Your task to perform on an android device: turn on bluetooth scan Image 0: 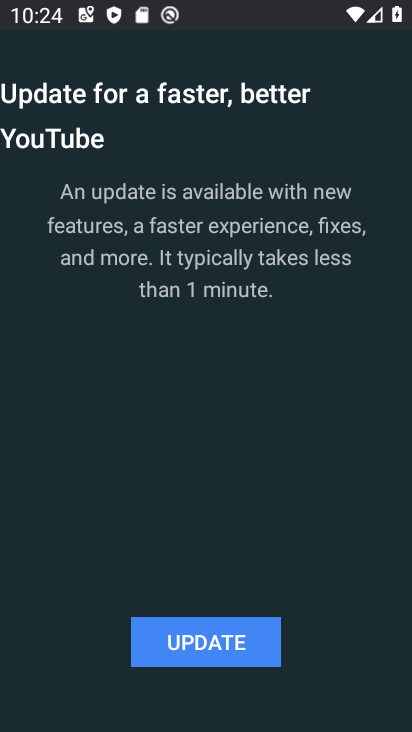
Step 0: press home button
Your task to perform on an android device: turn on bluetooth scan Image 1: 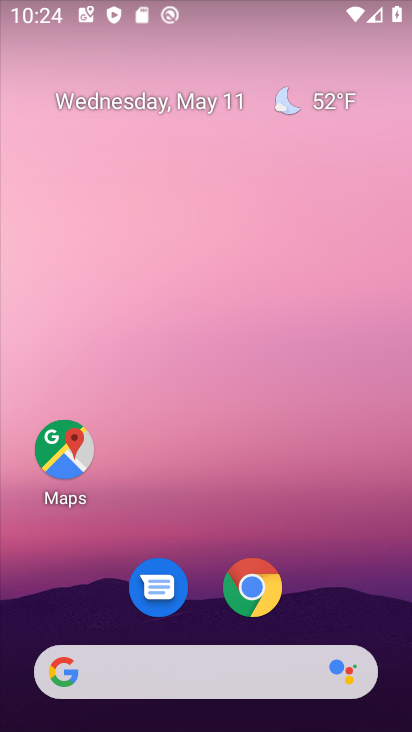
Step 1: drag from (214, 707) to (162, 224)
Your task to perform on an android device: turn on bluetooth scan Image 2: 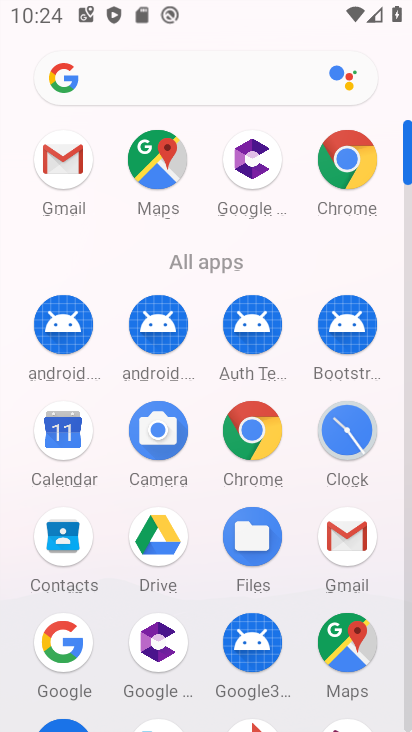
Step 2: drag from (108, 401) to (91, 250)
Your task to perform on an android device: turn on bluetooth scan Image 3: 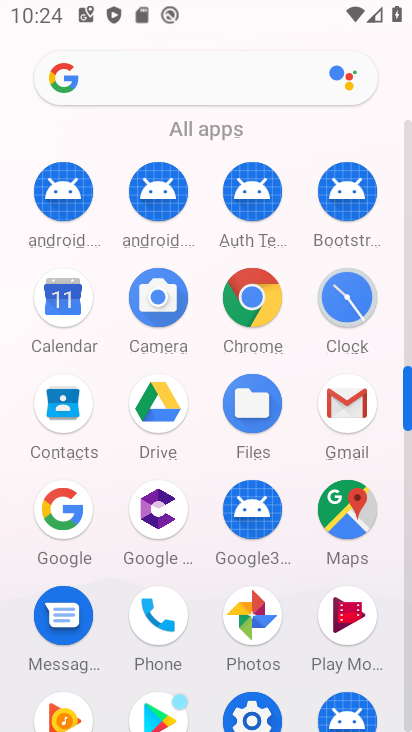
Step 3: click (262, 704)
Your task to perform on an android device: turn on bluetooth scan Image 4: 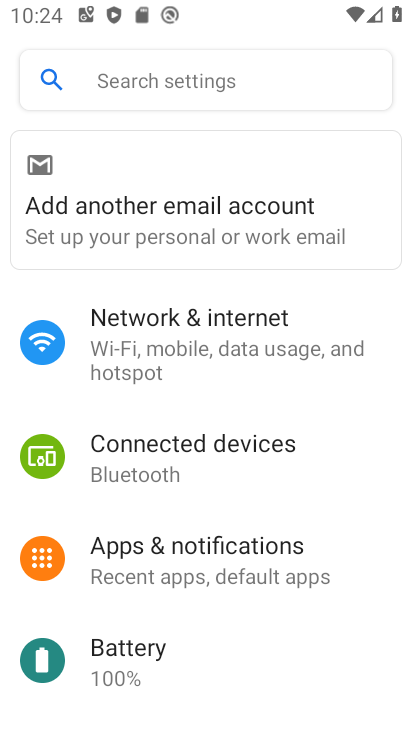
Step 4: click (148, 93)
Your task to perform on an android device: turn on bluetooth scan Image 5: 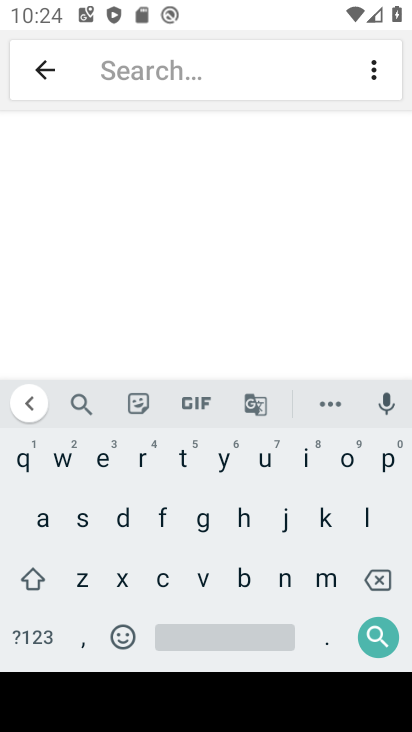
Step 5: click (367, 518)
Your task to perform on an android device: turn on bluetooth scan Image 6: 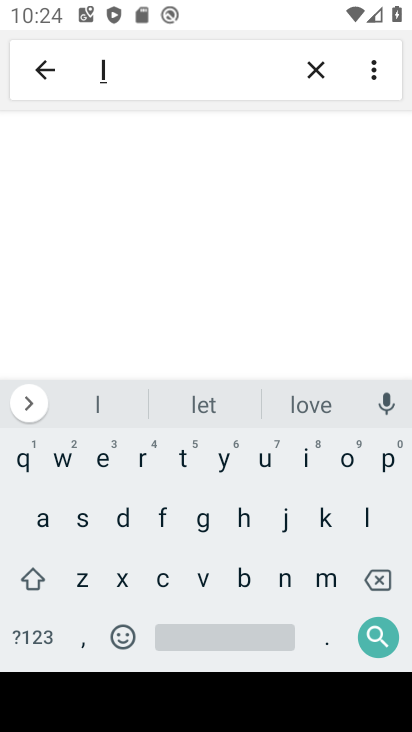
Step 6: click (336, 456)
Your task to perform on an android device: turn on bluetooth scan Image 7: 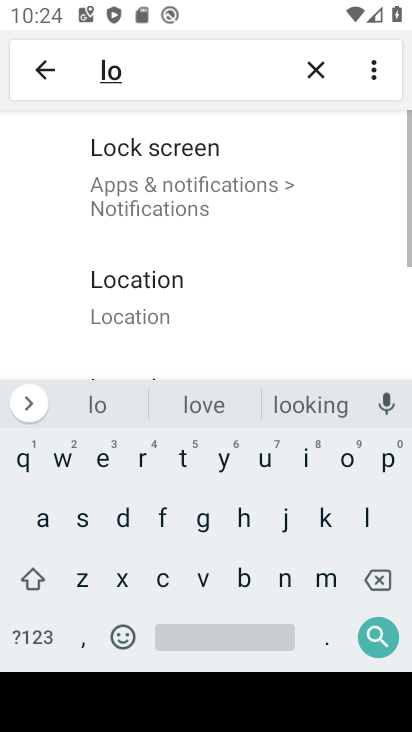
Step 7: click (153, 578)
Your task to perform on an android device: turn on bluetooth scan Image 8: 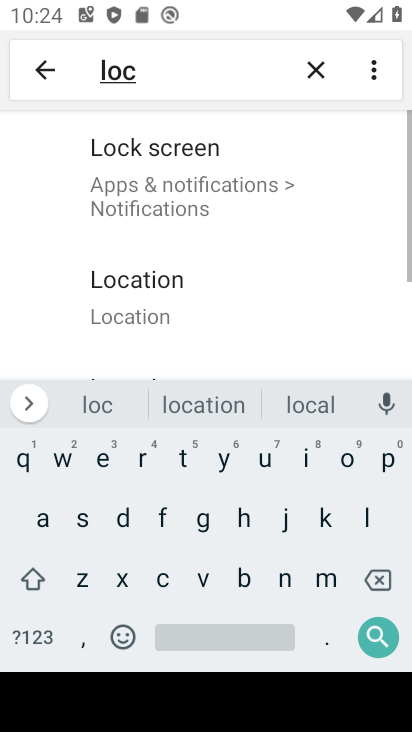
Step 8: click (158, 294)
Your task to perform on an android device: turn on bluetooth scan Image 9: 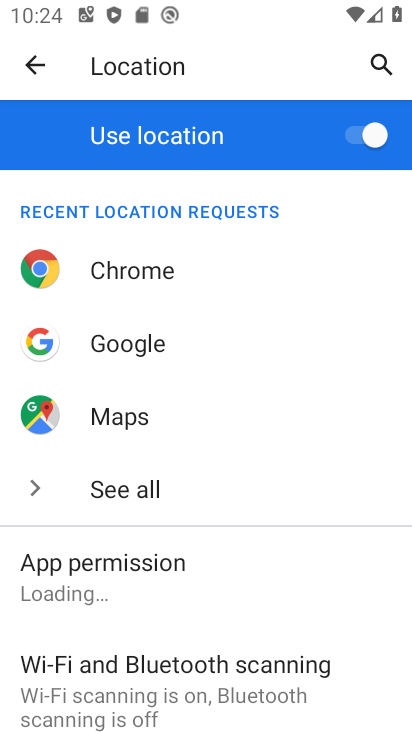
Step 9: click (245, 675)
Your task to perform on an android device: turn on bluetooth scan Image 10: 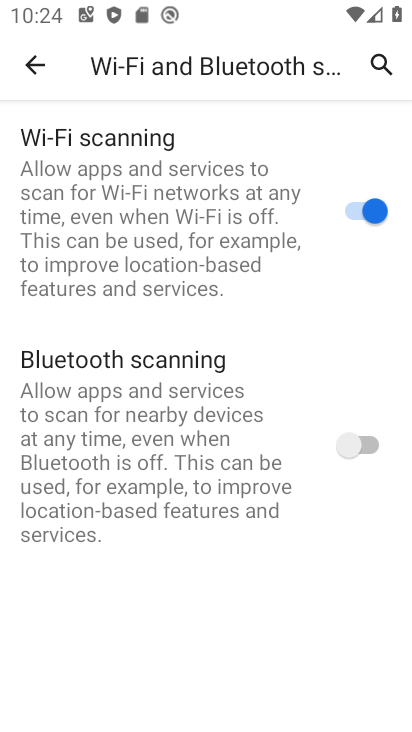
Step 10: click (326, 449)
Your task to perform on an android device: turn on bluetooth scan Image 11: 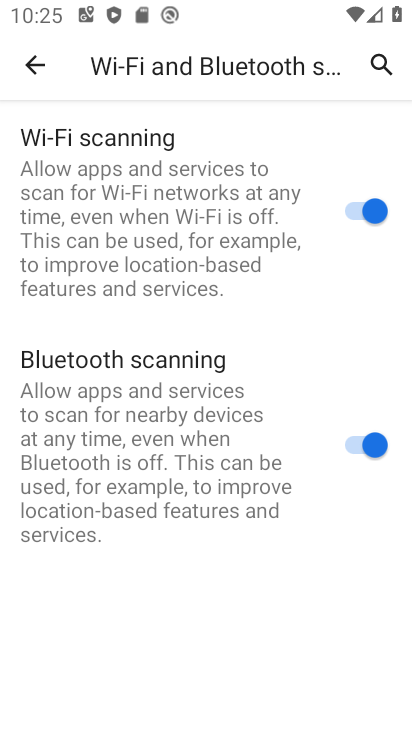
Step 11: task complete